Your task to perform on an android device: open app "Messages" (install if not already installed) Image 0: 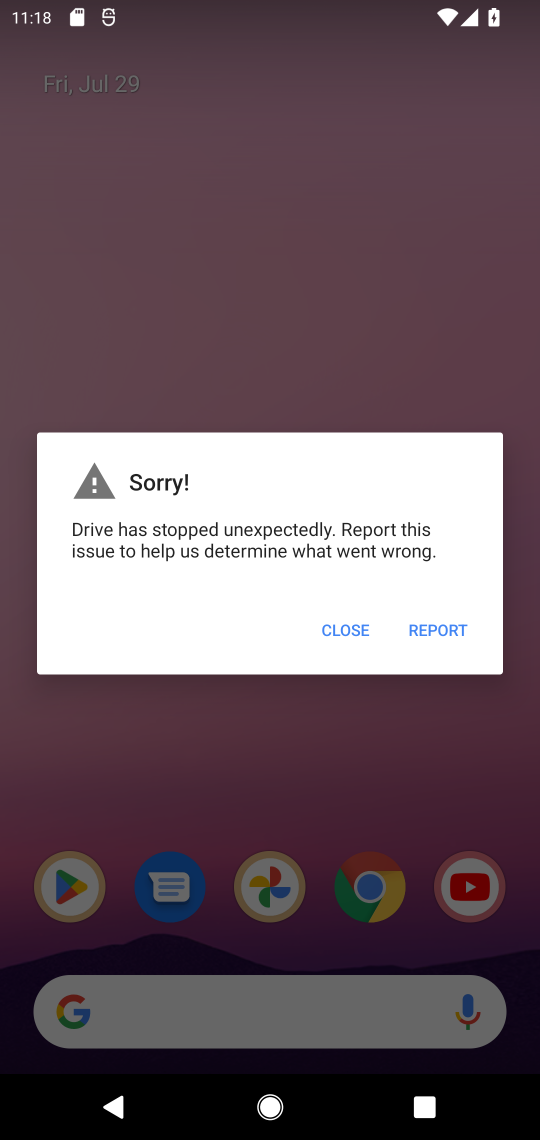
Step 0: press home button
Your task to perform on an android device: open app "Messages" (install if not already installed) Image 1: 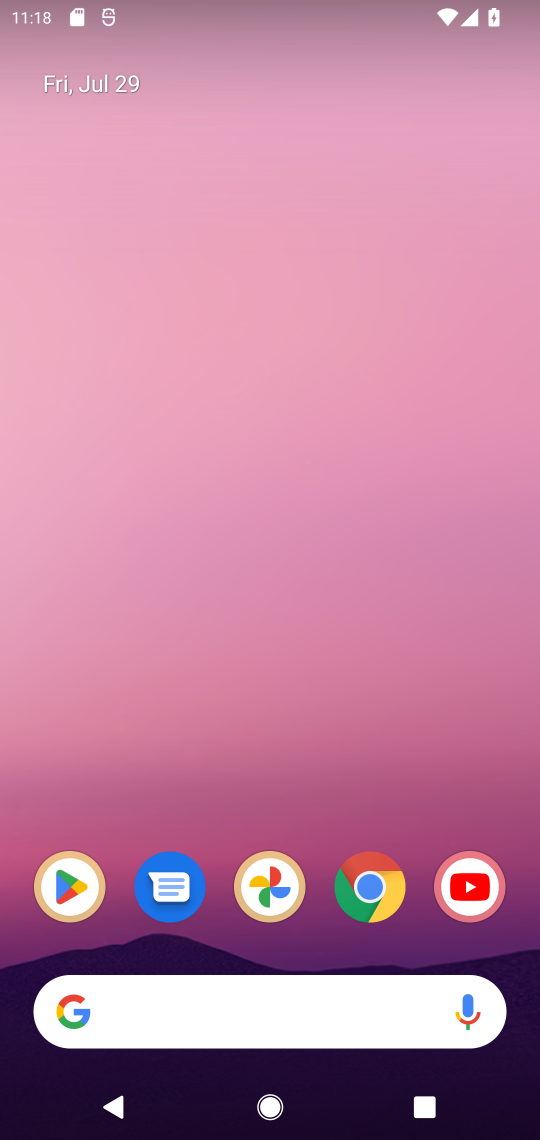
Step 1: drag from (182, 1006) to (439, 5)
Your task to perform on an android device: open app "Messages" (install if not already installed) Image 2: 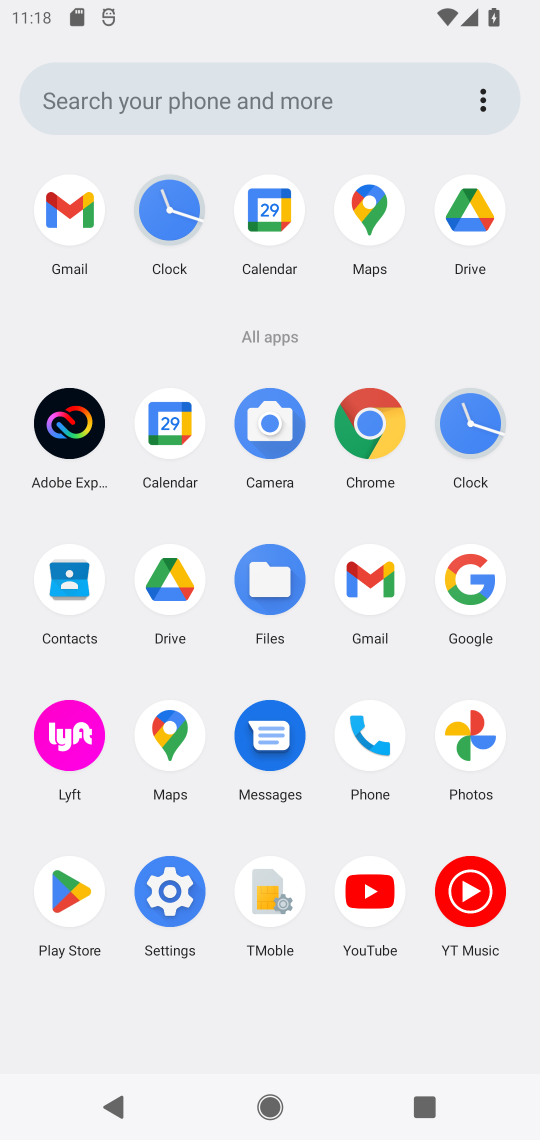
Step 2: click (74, 889)
Your task to perform on an android device: open app "Messages" (install if not already installed) Image 3: 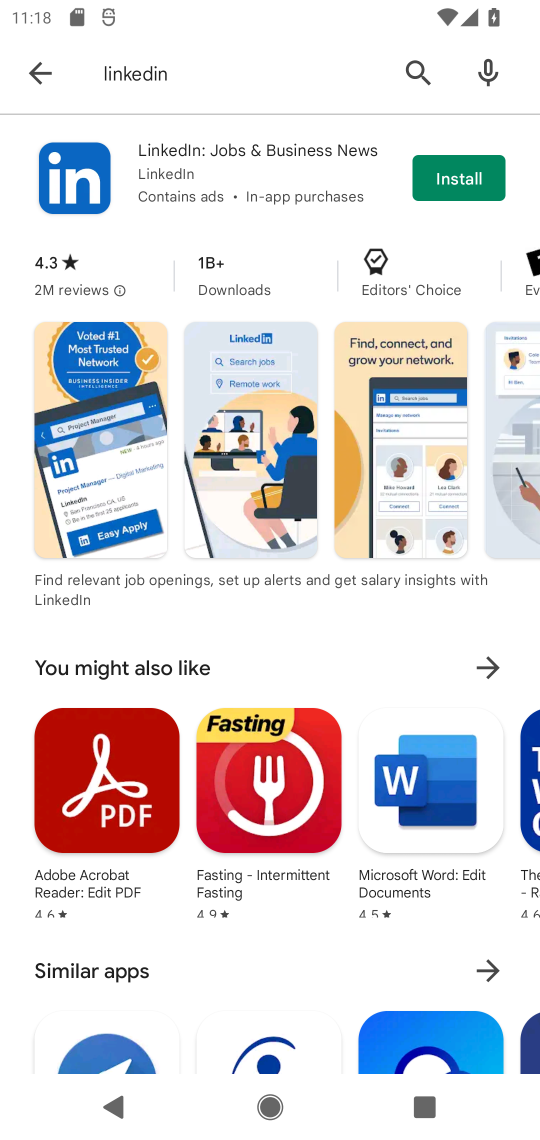
Step 3: click (415, 74)
Your task to perform on an android device: open app "Messages" (install if not already installed) Image 4: 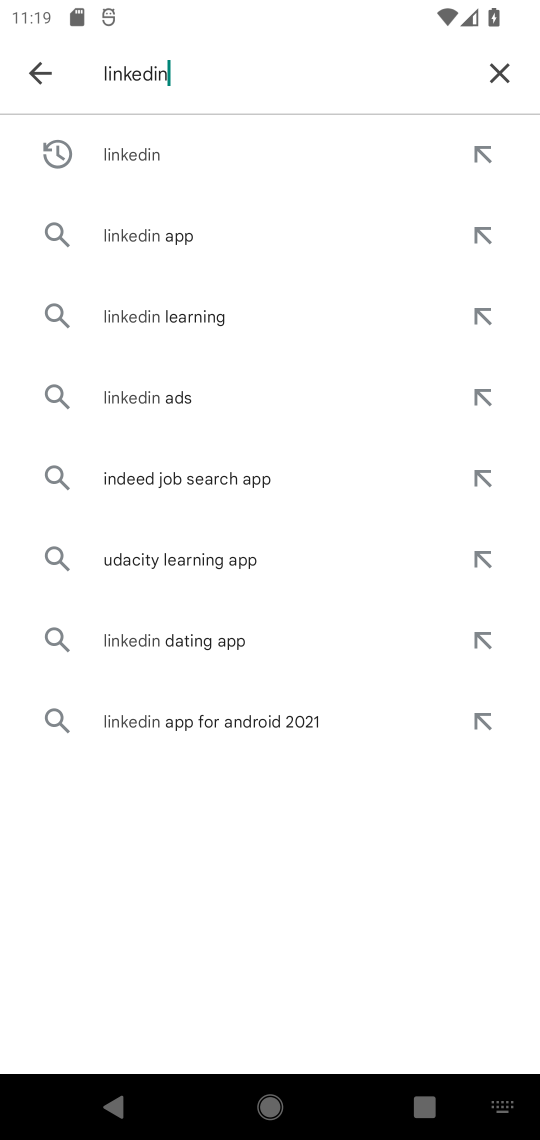
Step 4: click (500, 67)
Your task to perform on an android device: open app "Messages" (install if not already installed) Image 5: 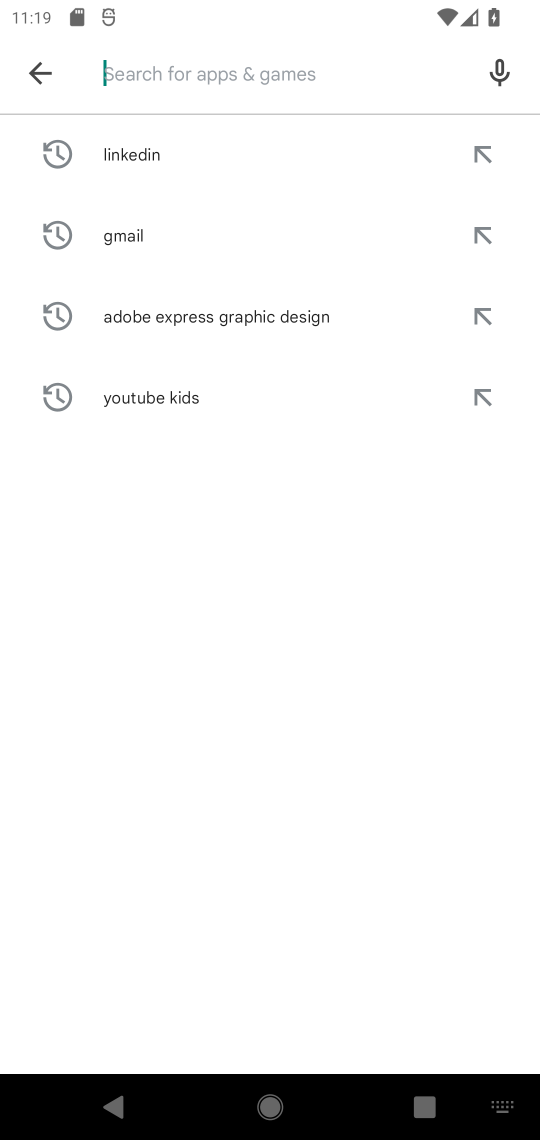
Step 5: type "Messages"
Your task to perform on an android device: open app "Messages" (install if not already installed) Image 6: 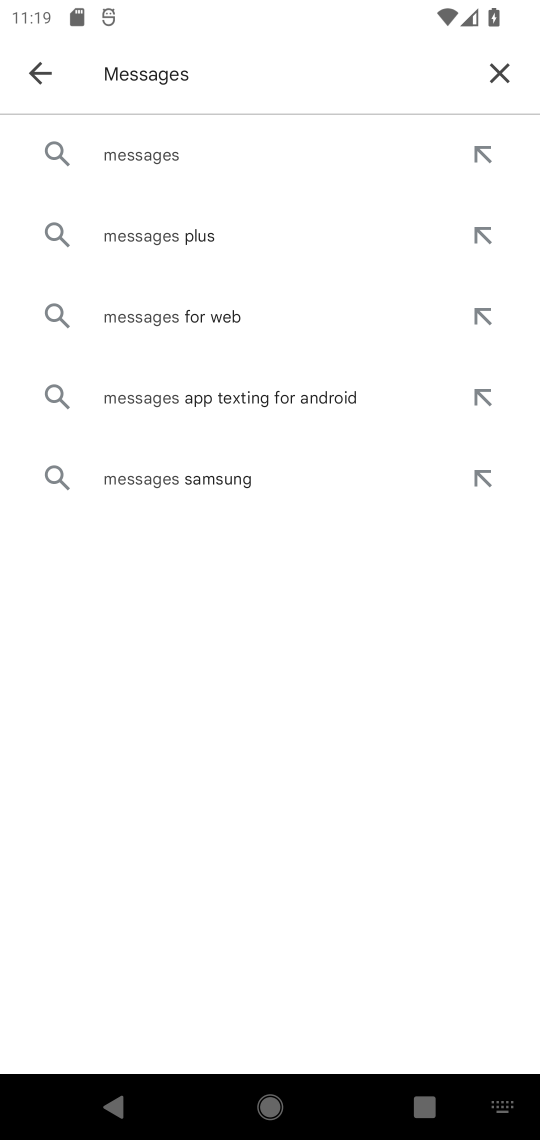
Step 6: click (168, 153)
Your task to perform on an android device: open app "Messages" (install if not already installed) Image 7: 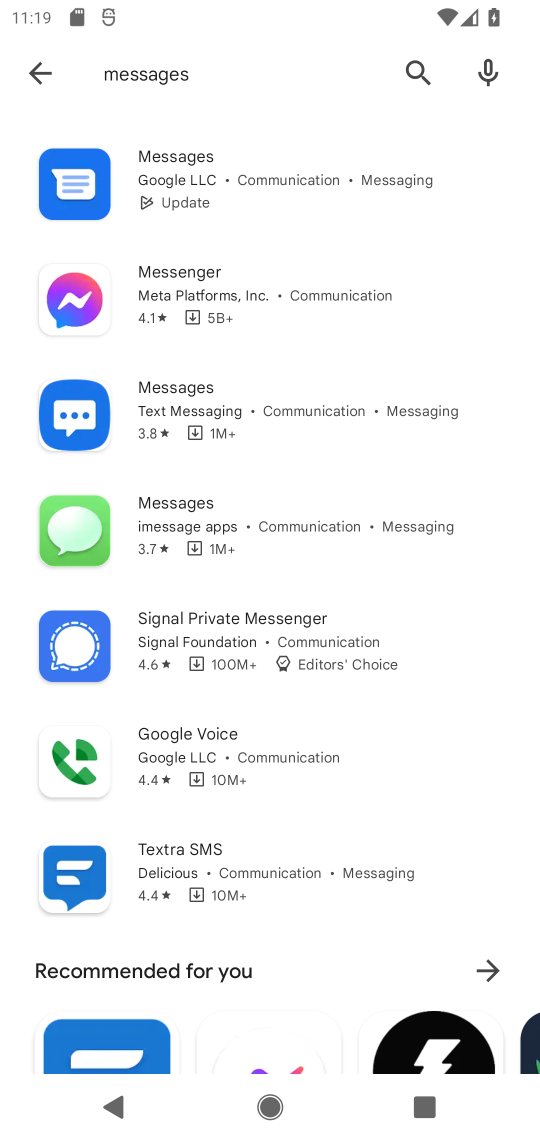
Step 7: click (194, 148)
Your task to perform on an android device: open app "Messages" (install if not already installed) Image 8: 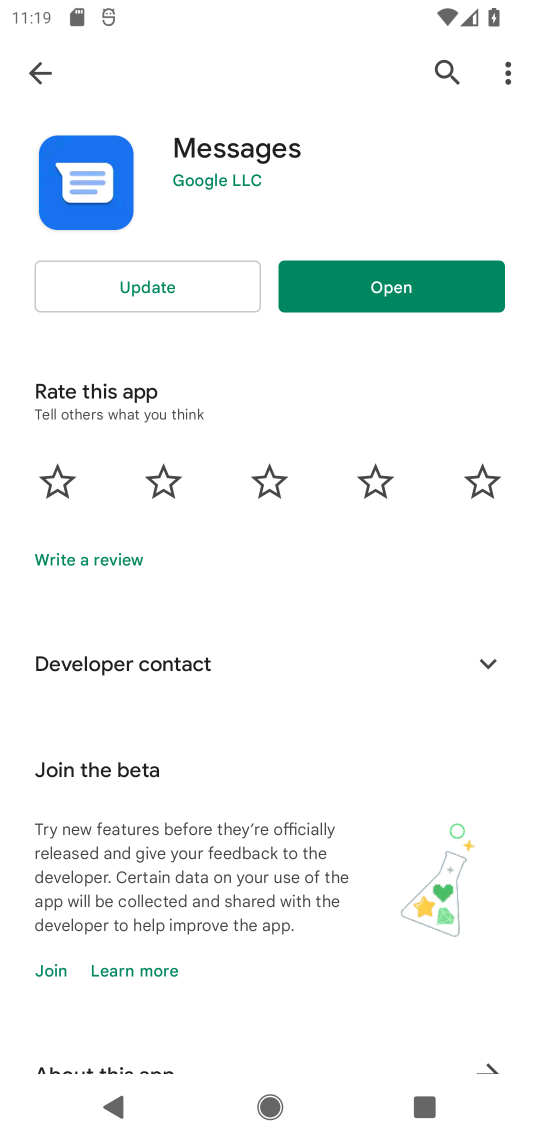
Step 8: click (357, 297)
Your task to perform on an android device: open app "Messages" (install if not already installed) Image 9: 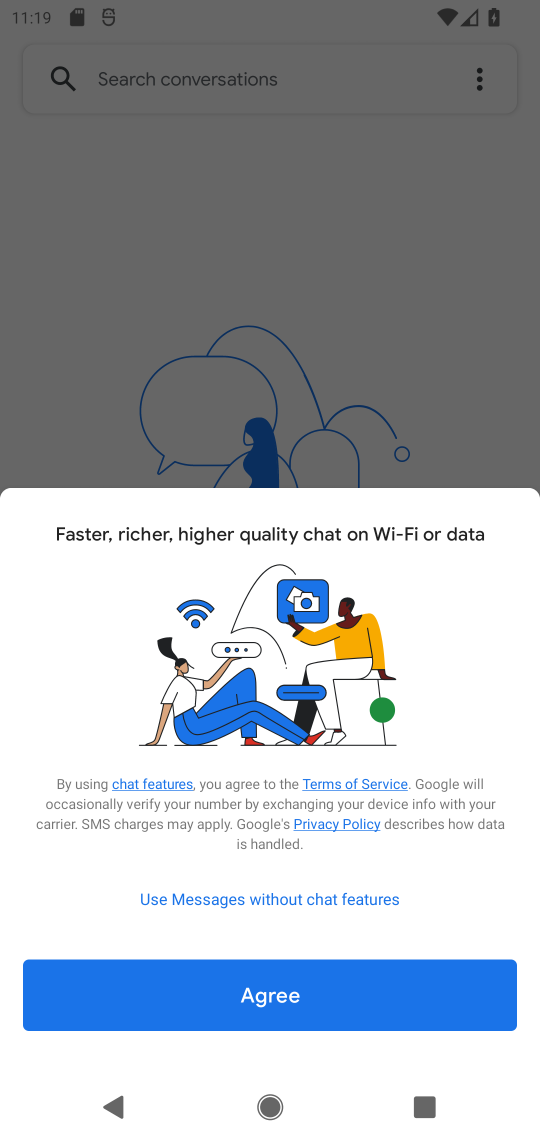
Step 9: task complete